Your task to perform on an android device: Open maps Image 0: 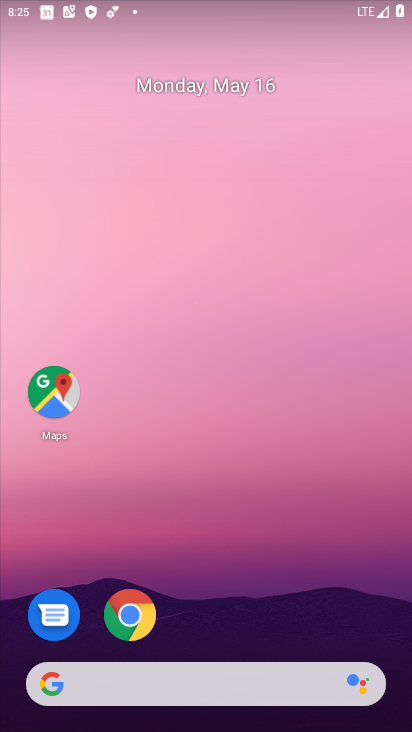
Step 0: drag from (294, 662) to (315, 5)
Your task to perform on an android device: Open maps Image 1: 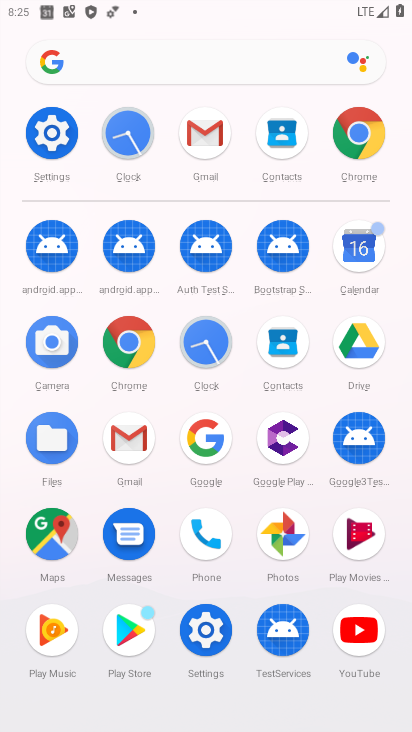
Step 1: click (51, 539)
Your task to perform on an android device: Open maps Image 2: 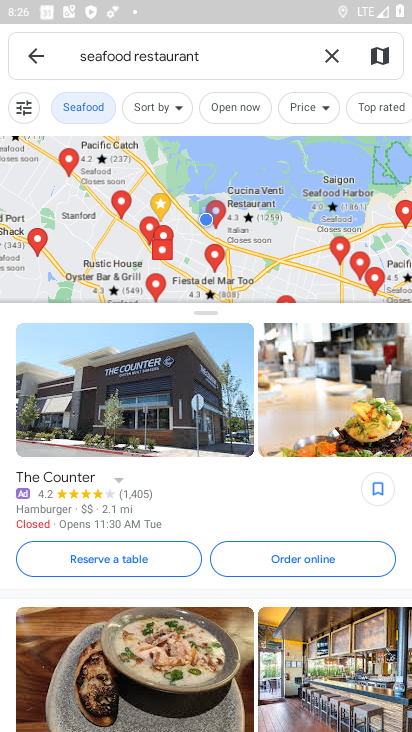
Step 2: task complete